Your task to perform on an android device: Toggle the flashlight Image 0: 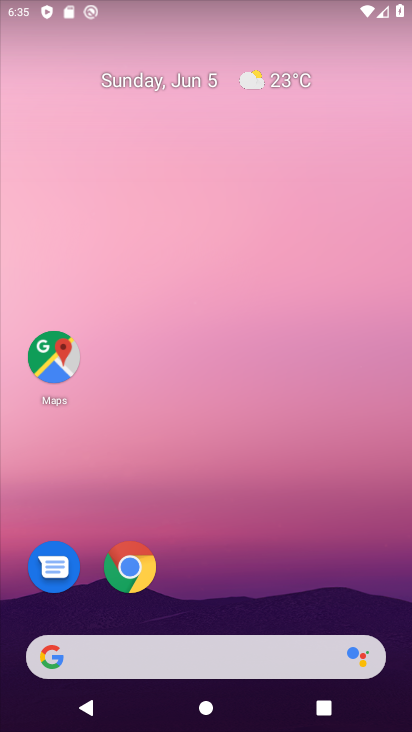
Step 0: drag from (344, 613) to (267, 25)
Your task to perform on an android device: Toggle the flashlight Image 1: 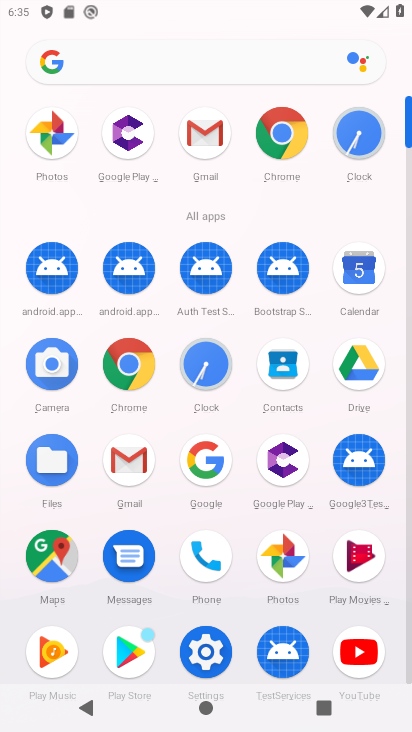
Step 1: click (213, 650)
Your task to perform on an android device: Toggle the flashlight Image 2: 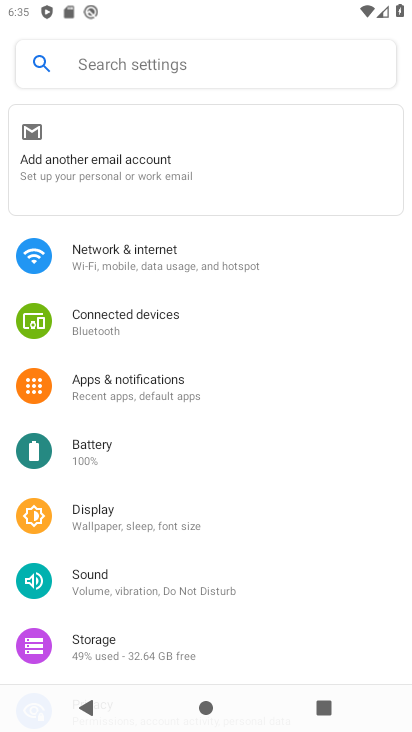
Step 2: task complete